Your task to perform on an android device: Open calendar and show me the third week of next month Image 0: 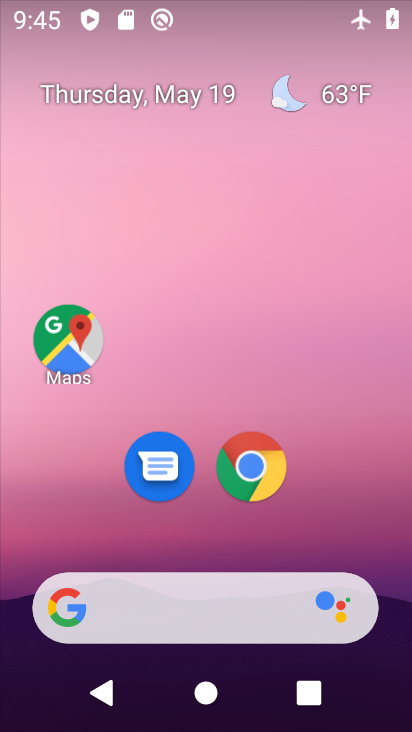
Step 0: drag from (393, 596) to (239, 88)
Your task to perform on an android device: Open calendar and show me the third week of next month Image 1: 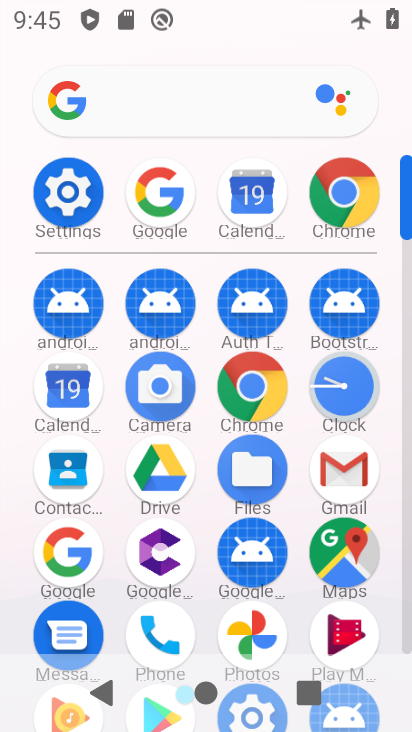
Step 1: click (43, 404)
Your task to perform on an android device: Open calendar and show me the third week of next month Image 2: 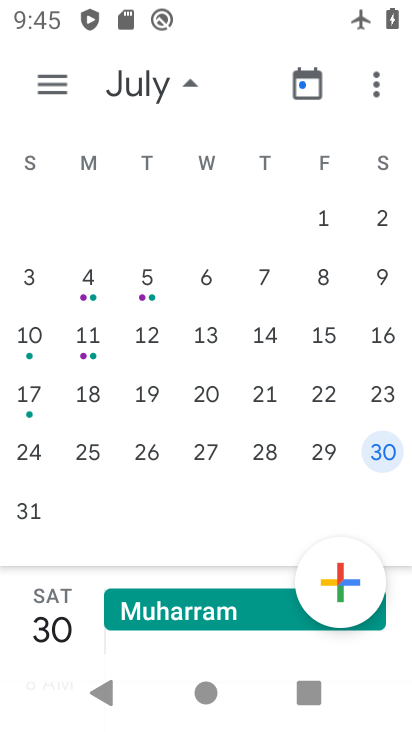
Step 2: drag from (372, 349) to (53, 368)
Your task to perform on an android device: Open calendar and show me the third week of next month Image 3: 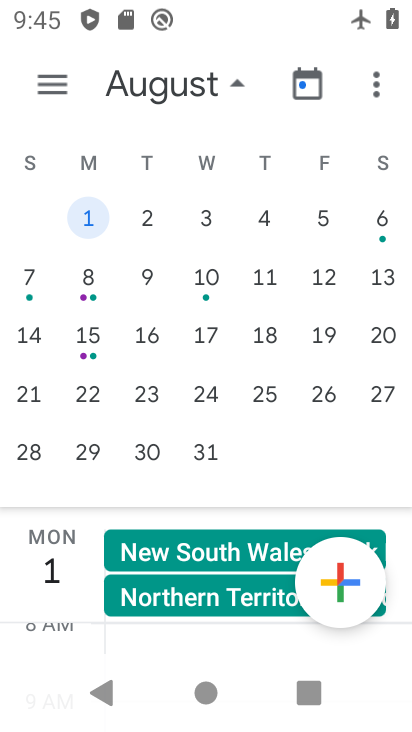
Step 3: click (255, 386)
Your task to perform on an android device: Open calendar and show me the third week of next month Image 4: 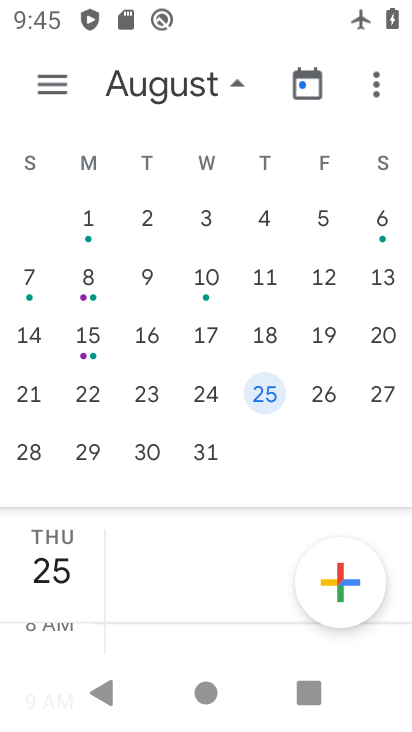
Step 4: task complete